Your task to perform on an android device: turn on airplane mode Image 0: 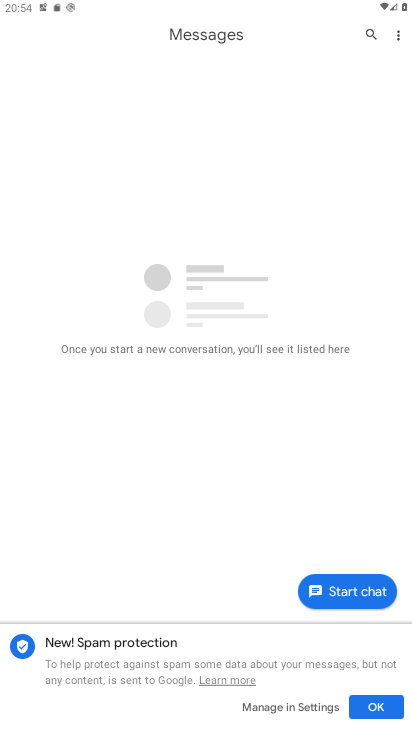
Step 0: press home button
Your task to perform on an android device: turn on airplane mode Image 1: 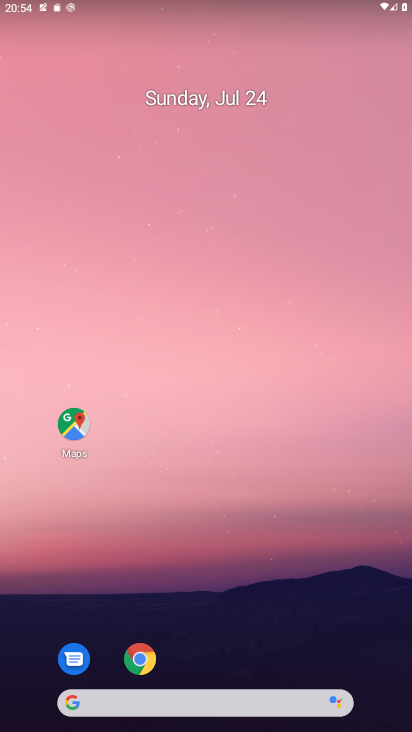
Step 1: drag from (210, 720) to (210, 216)
Your task to perform on an android device: turn on airplane mode Image 2: 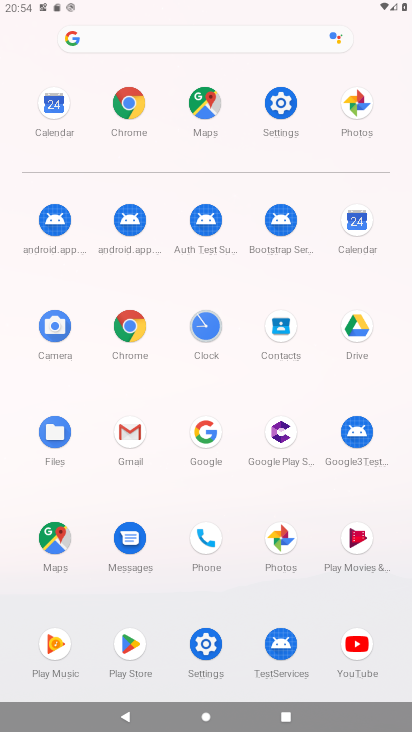
Step 2: click (280, 108)
Your task to perform on an android device: turn on airplane mode Image 3: 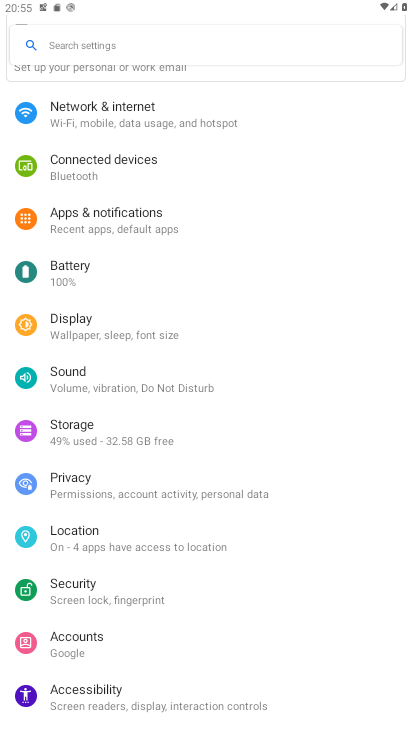
Step 3: click (115, 105)
Your task to perform on an android device: turn on airplane mode Image 4: 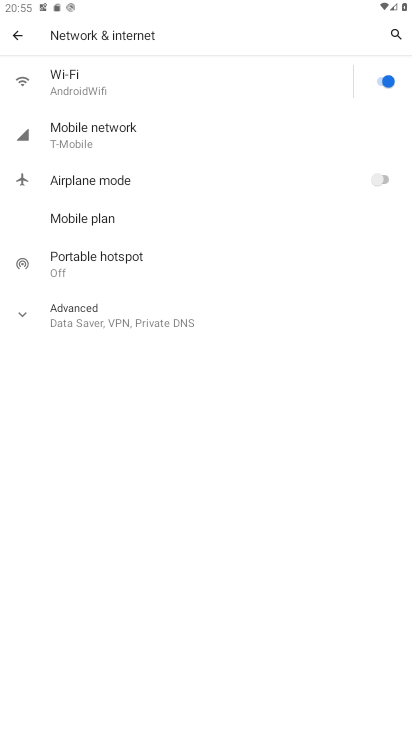
Step 4: click (385, 177)
Your task to perform on an android device: turn on airplane mode Image 5: 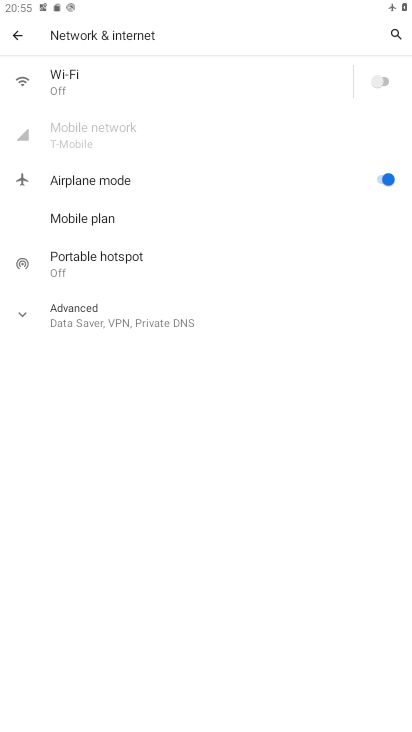
Step 5: task complete